Your task to perform on an android device: Turn on the flashlight Image 0: 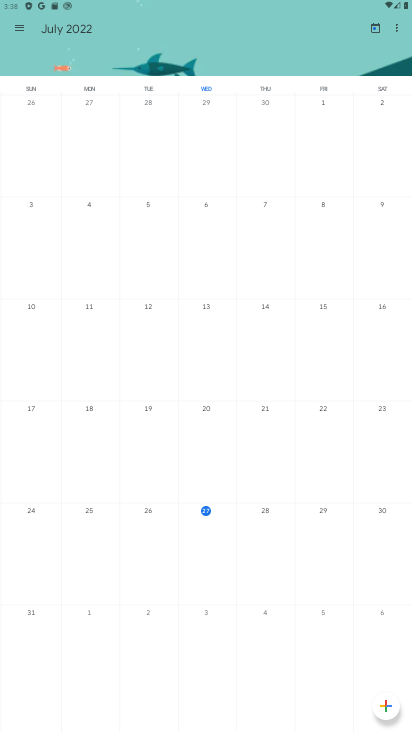
Step 0: press home button
Your task to perform on an android device: Turn on the flashlight Image 1: 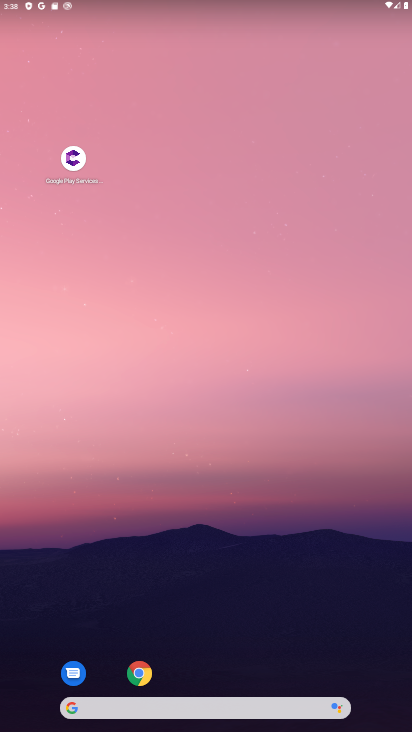
Step 1: drag from (329, 5) to (322, 454)
Your task to perform on an android device: Turn on the flashlight Image 2: 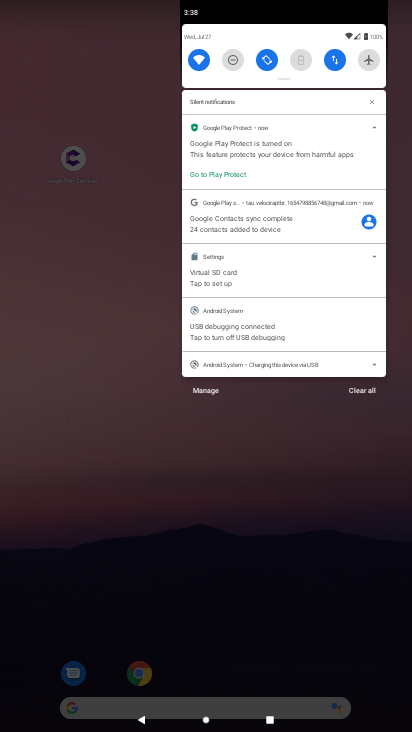
Step 2: drag from (296, 72) to (276, 537)
Your task to perform on an android device: Turn on the flashlight Image 3: 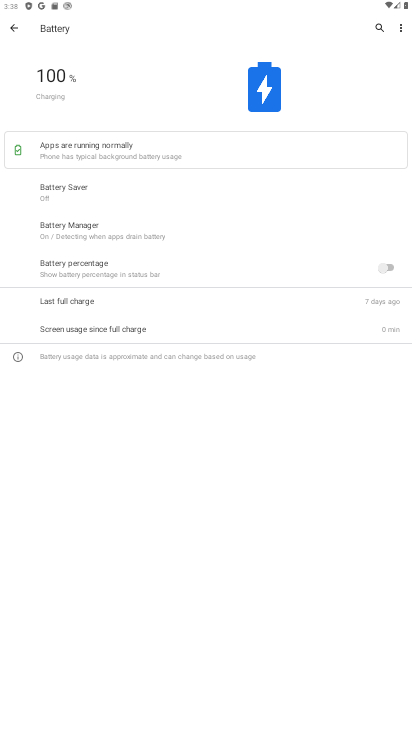
Step 3: press back button
Your task to perform on an android device: Turn on the flashlight Image 4: 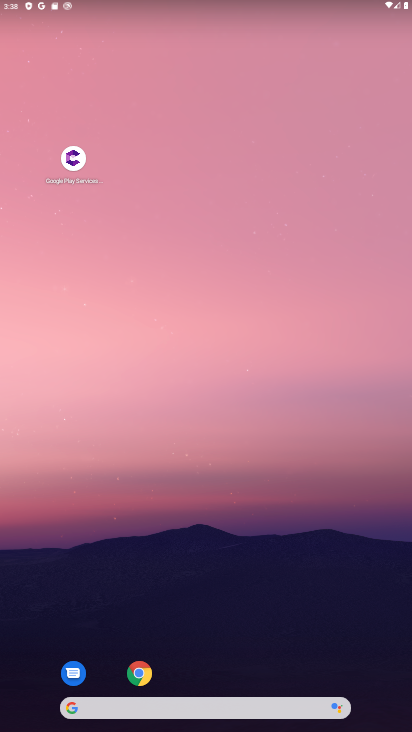
Step 4: drag from (234, 4) to (252, 628)
Your task to perform on an android device: Turn on the flashlight Image 5: 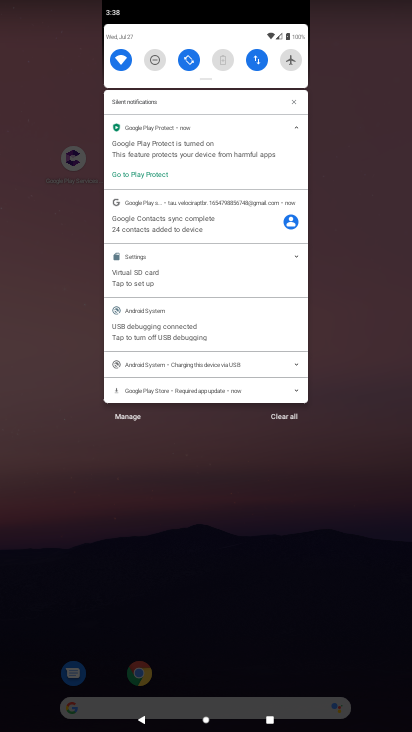
Step 5: drag from (203, 65) to (182, 567)
Your task to perform on an android device: Turn on the flashlight Image 6: 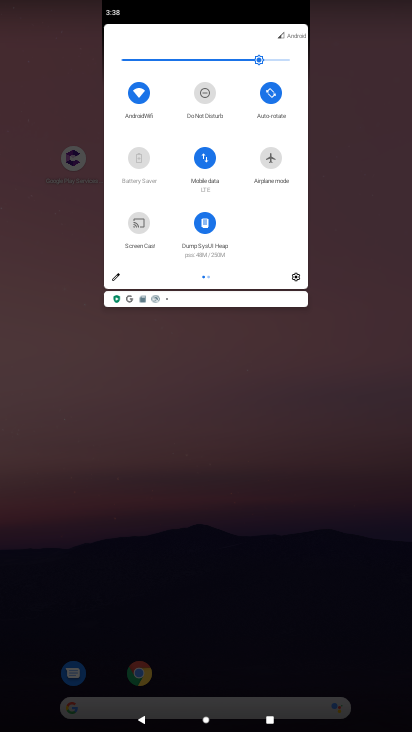
Step 6: click (119, 275)
Your task to perform on an android device: Turn on the flashlight Image 7: 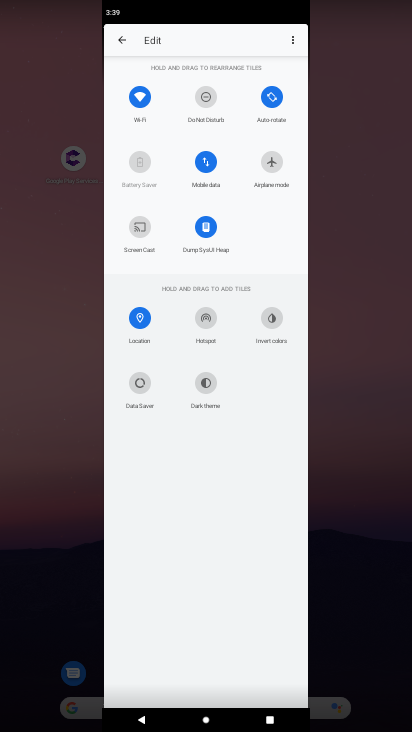
Step 7: task complete